Your task to perform on an android device: What's on my calendar tomorrow? Image 0: 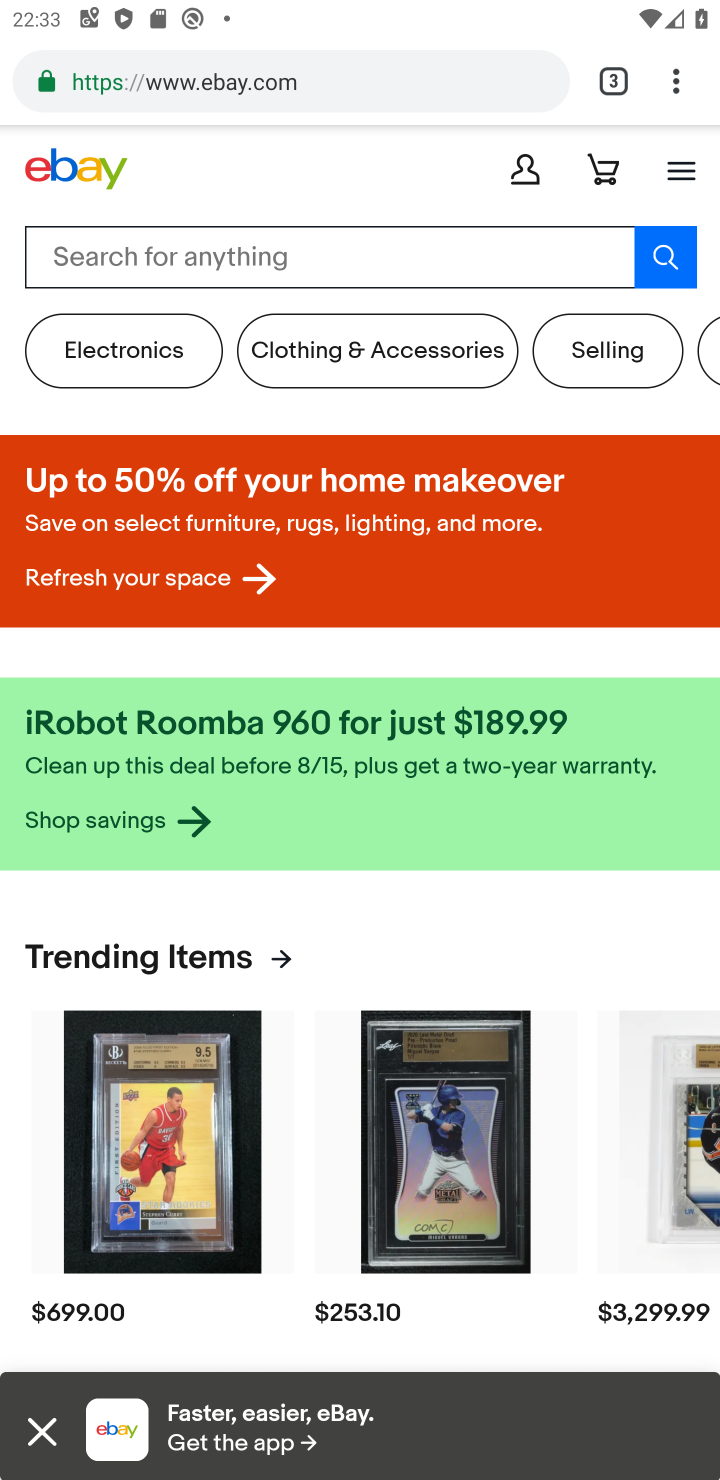
Step 0: press home button
Your task to perform on an android device: What's on my calendar tomorrow? Image 1: 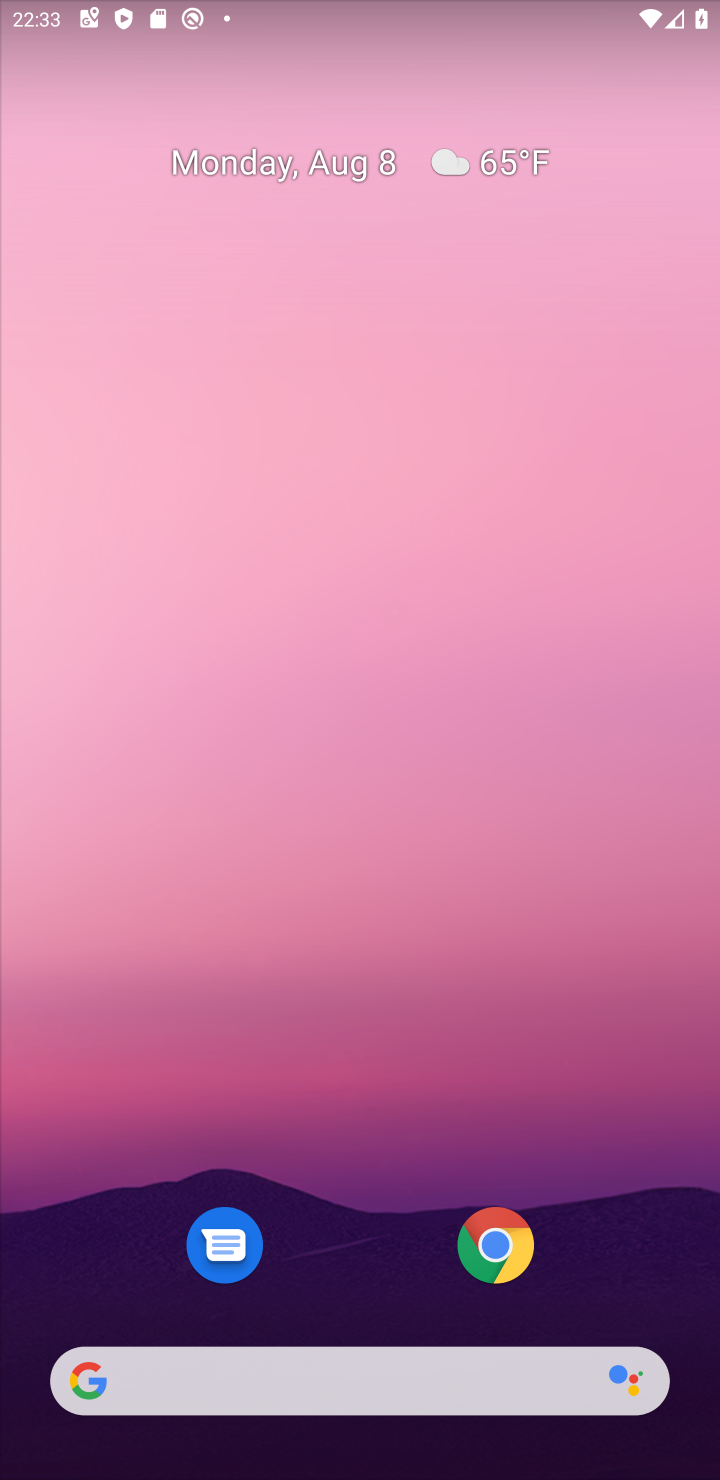
Step 1: drag from (355, 1165) to (260, 148)
Your task to perform on an android device: What's on my calendar tomorrow? Image 2: 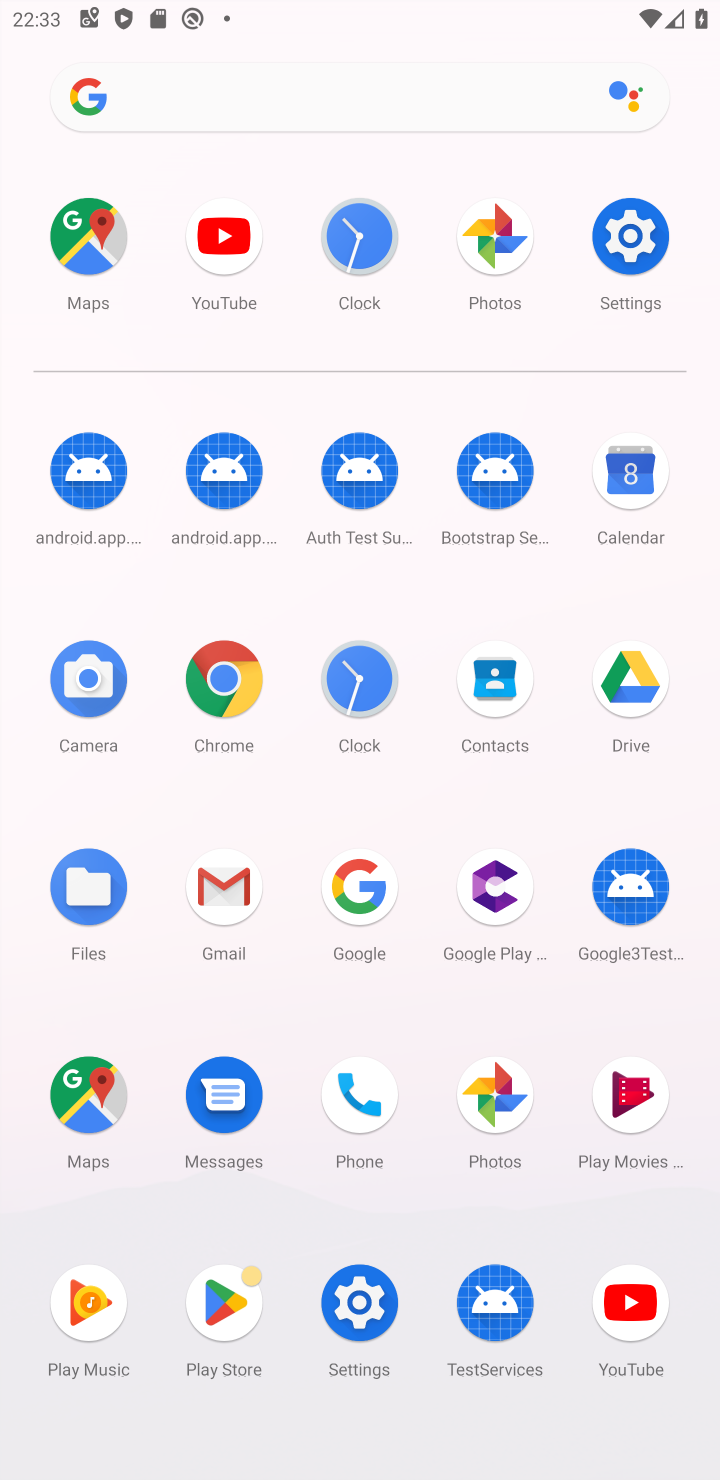
Step 2: click (623, 474)
Your task to perform on an android device: What's on my calendar tomorrow? Image 3: 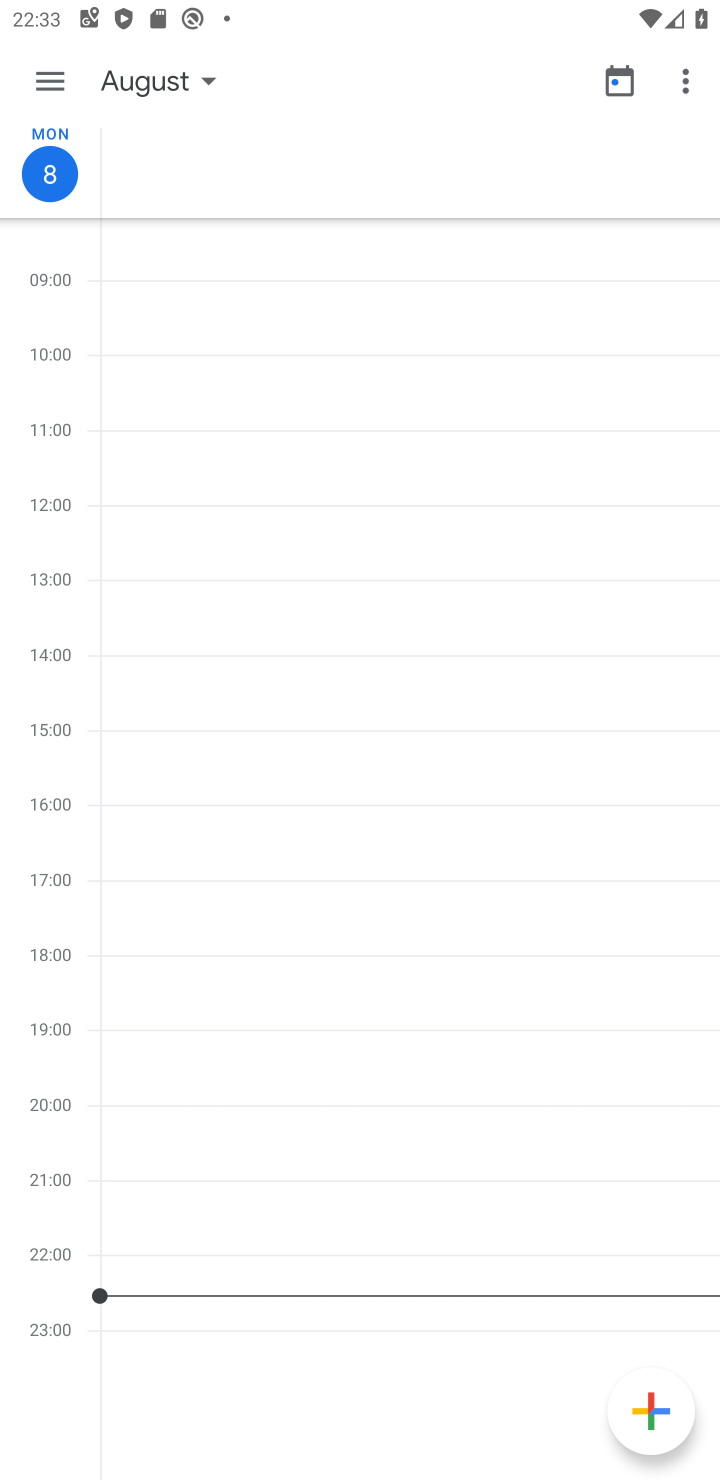
Step 3: click (202, 77)
Your task to perform on an android device: What's on my calendar tomorrow? Image 4: 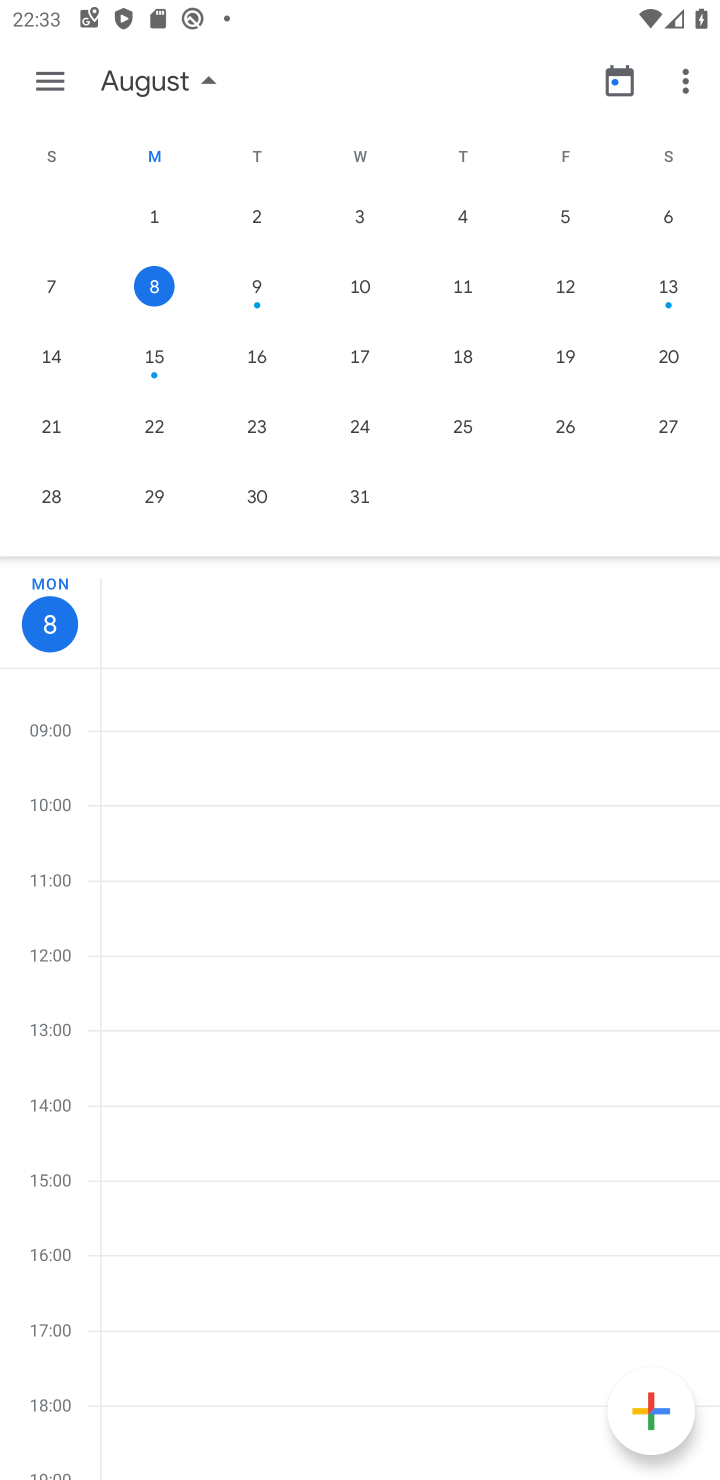
Step 4: click (256, 285)
Your task to perform on an android device: What's on my calendar tomorrow? Image 5: 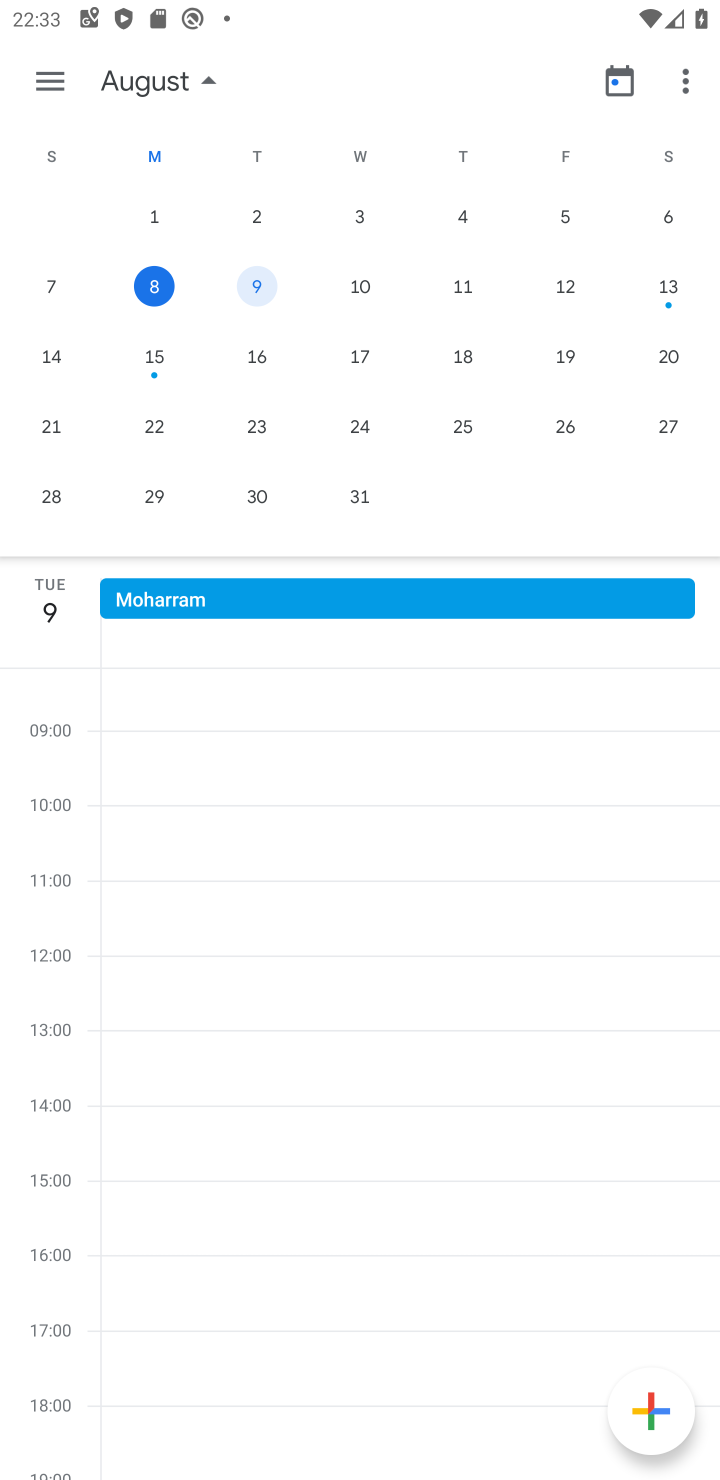
Step 5: task complete